Your task to perform on an android device: turn off location Image 0: 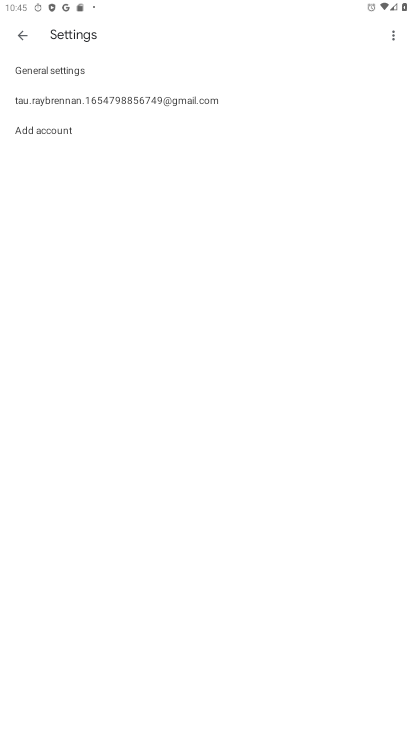
Step 0: press home button
Your task to perform on an android device: turn off location Image 1: 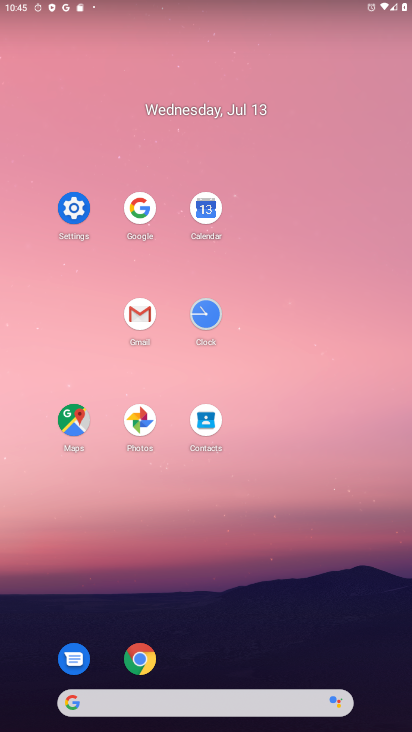
Step 1: click (66, 212)
Your task to perform on an android device: turn off location Image 2: 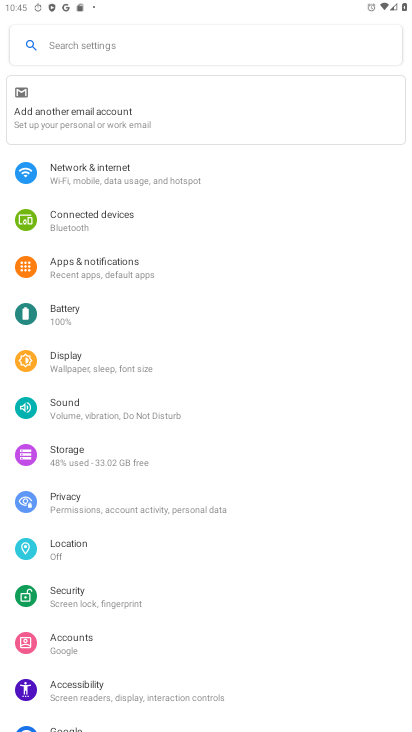
Step 2: click (112, 555)
Your task to perform on an android device: turn off location Image 3: 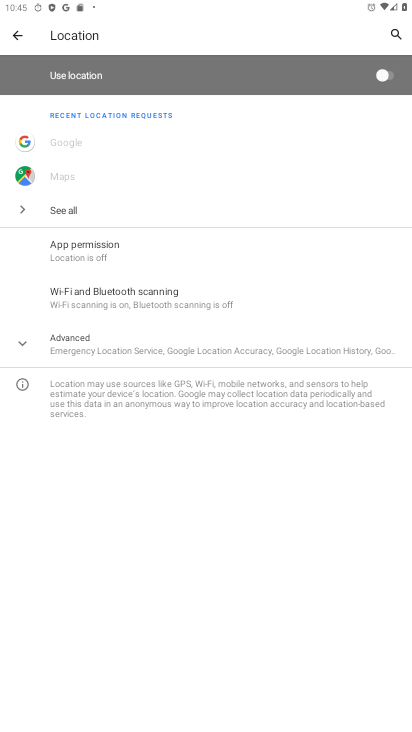
Step 3: task complete